Your task to perform on an android device: Do I have any events tomorrow? Image 0: 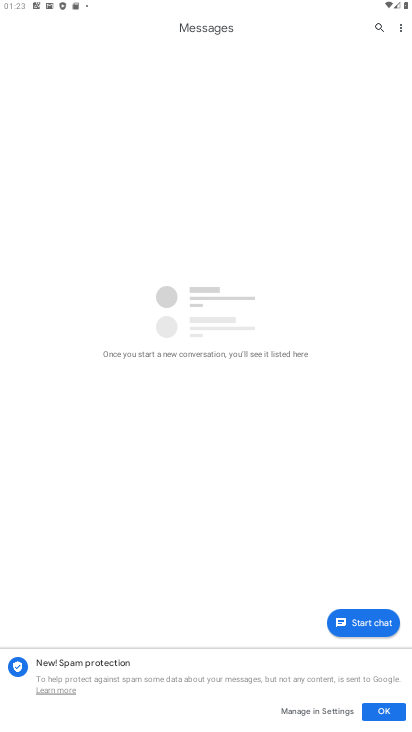
Step 0: press home button
Your task to perform on an android device: Do I have any events tomorrow? Image 1: 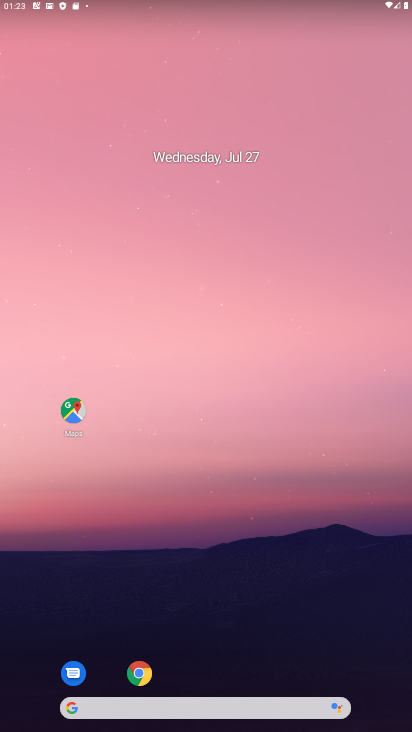
Step 1: drag from (239, 646) to (236, 176)
Your task to perform on an android device: Do I have any events tomorrow? Image 2: 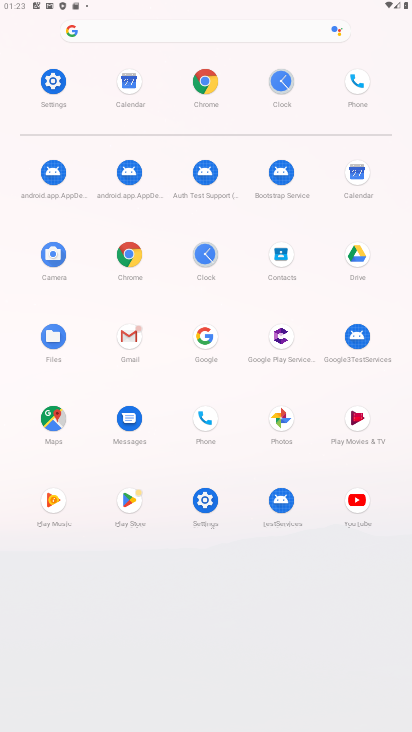
Step 2: click (353, 172)
Your task to perform on an android device: Do I have any events tomorrow? Image 3: 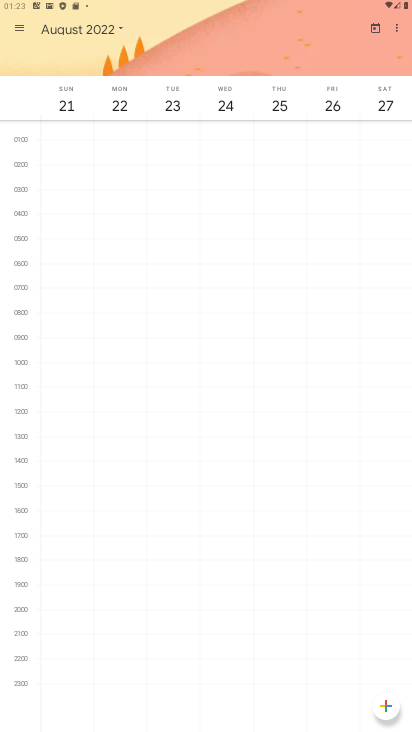
Step 3: click (11, 29)
Your task to perform on an android device: Do I have any events tomorrow? Image 4: 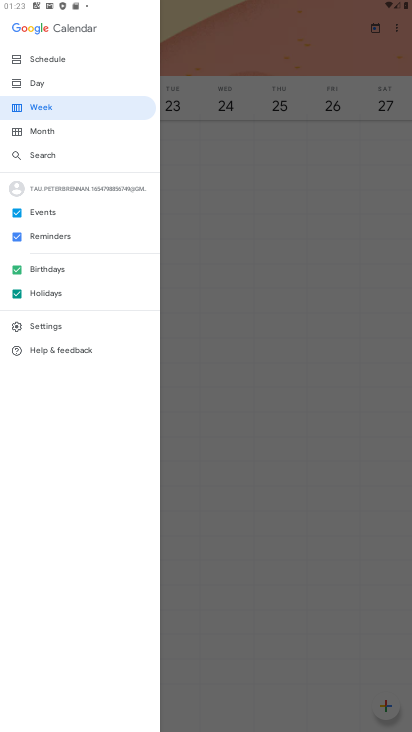
Step 4: click (43, 124)
Your task to perform on an android device: Do I have any events tomorrow? Image 5: 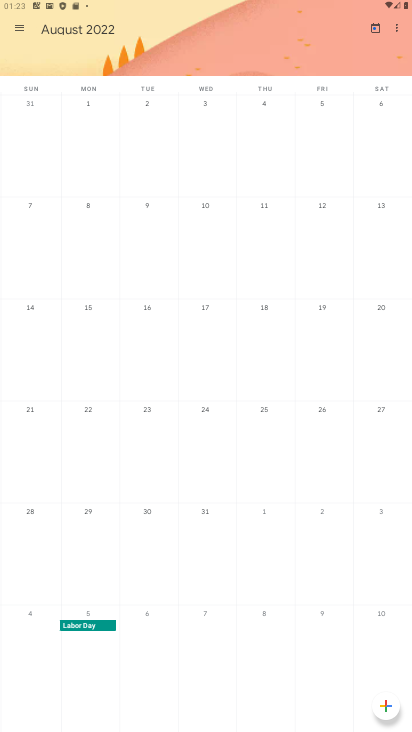
Step 5: drag from (96, 369) to (401, 408)
Your task to perform on an android device: Do I have any events tomorrow? Image 6: 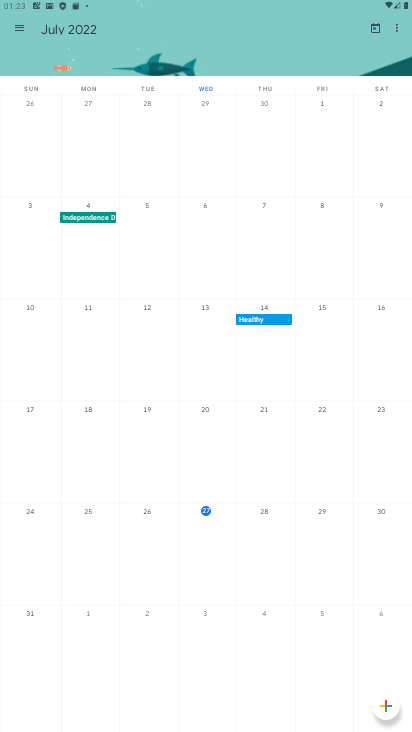
Step 6: click (264, 521)
Your task to perform on an android device: Do I have any events tomorrow? Image 7: 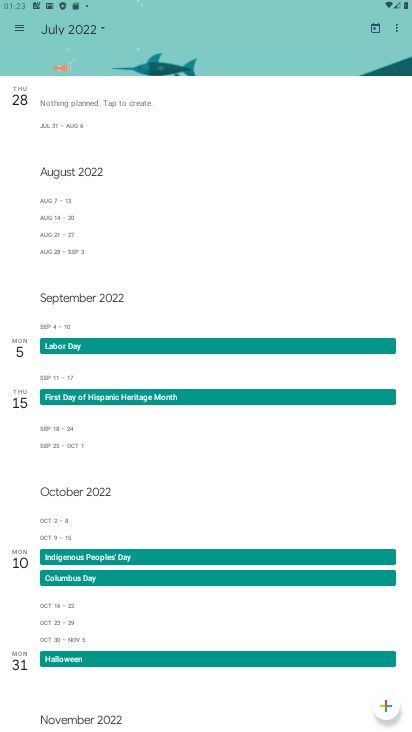
Step 7: task complete